Your task to perform on an android device: open a new tab in the chrome app Image 0: 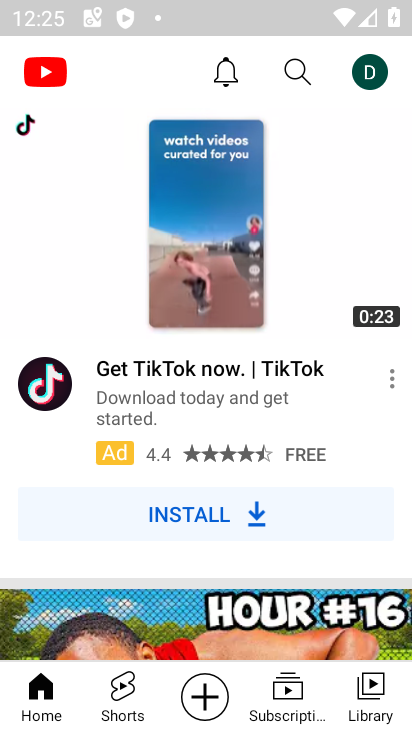
Step 0: press back button
Your task to perform on an android device: open a new tab in the chrome app Image 1: 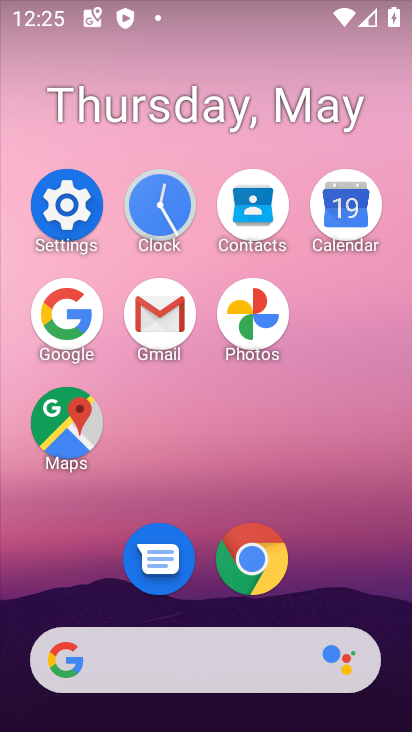
Step 1: click (268, 537)
Your task to perform on an android device: open a new tab in the chrome app Image 2: 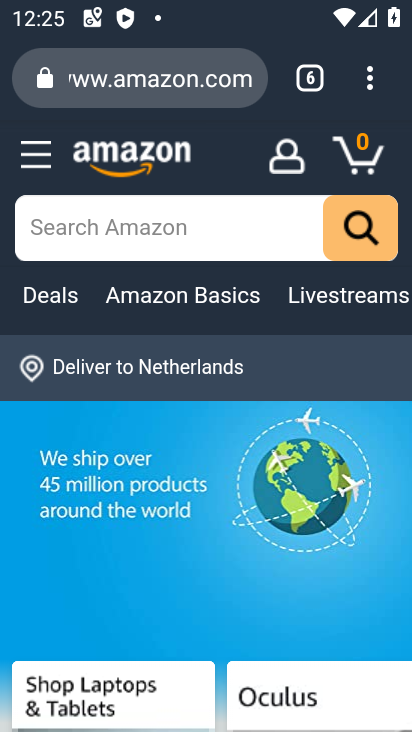
Step 2: click (314, 81)
Your task to perform on an android device: open a new tab in the chrome app Image 3: 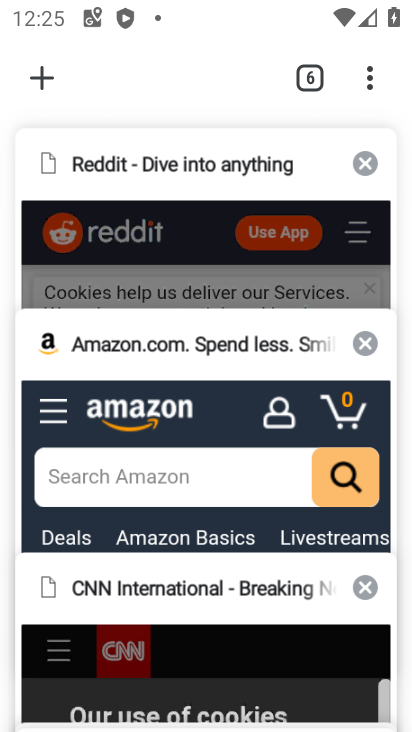
Step 3: click (49, 85)
Your task to perform on an android device: open a new tab in the chrome app Image 4: 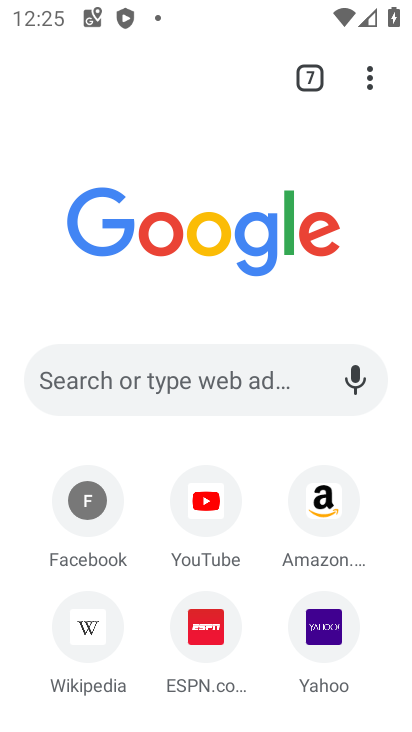
Step 4: task complete